Your task to perform on an android device: set the stopwatch Image 0: 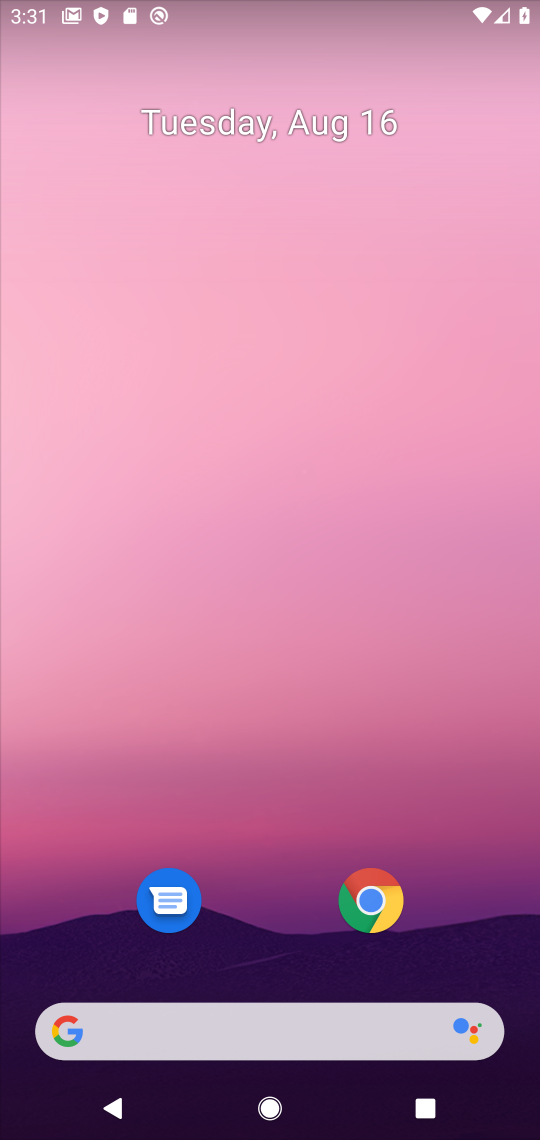
Step 0: drag from (259, 970) to (311, 105)
Your task to perform on an android device: set the stopwatch Image 1: 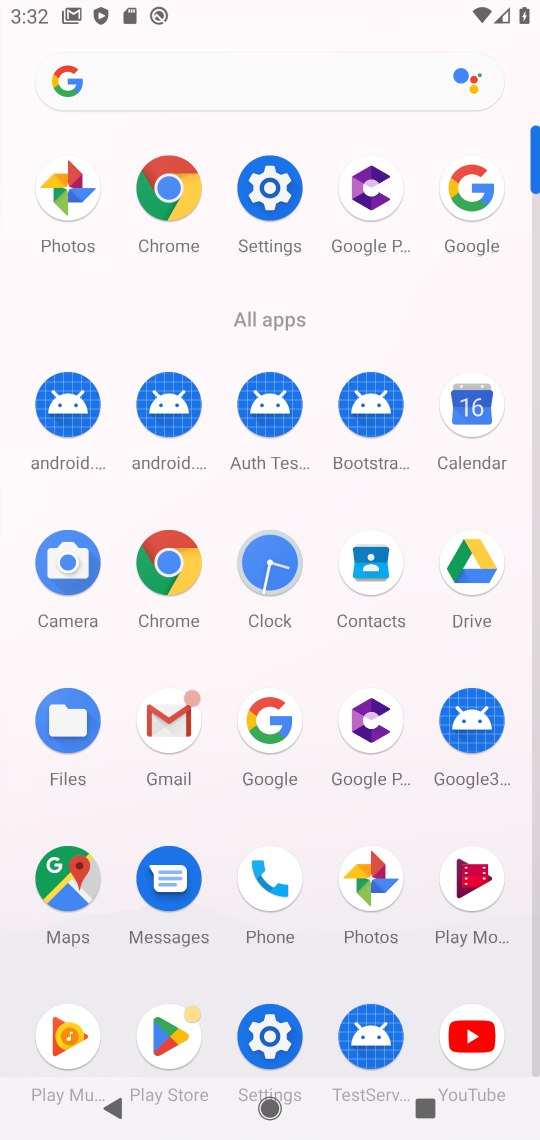
Step 1: click (273, 577)
Your task to perform on an android device: set the stopwatch Image 2: 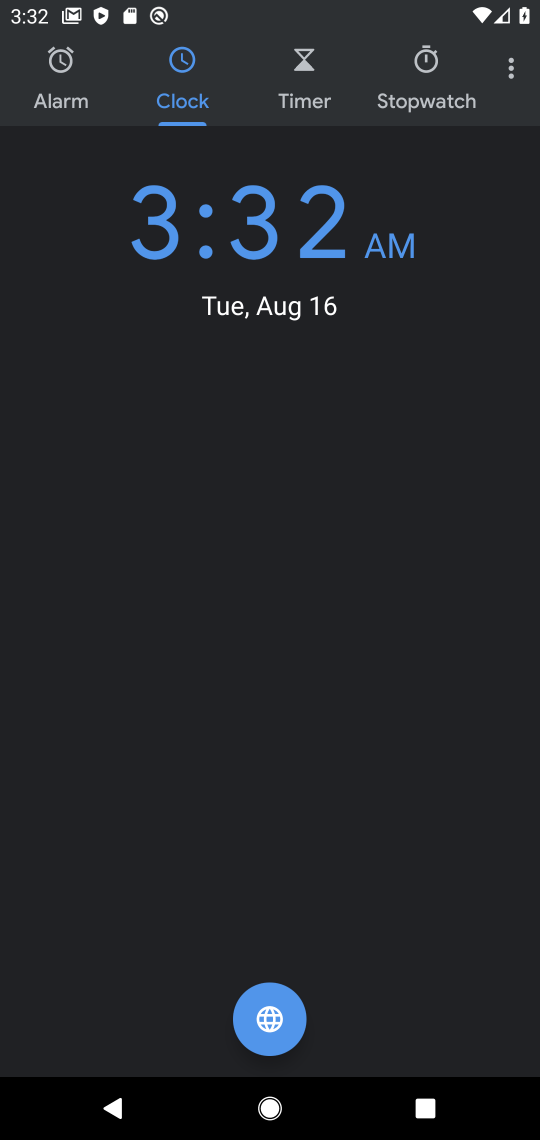
Step 2: click (433, 87)
Your task to perform on an android device: set the stopwatch Image 3: 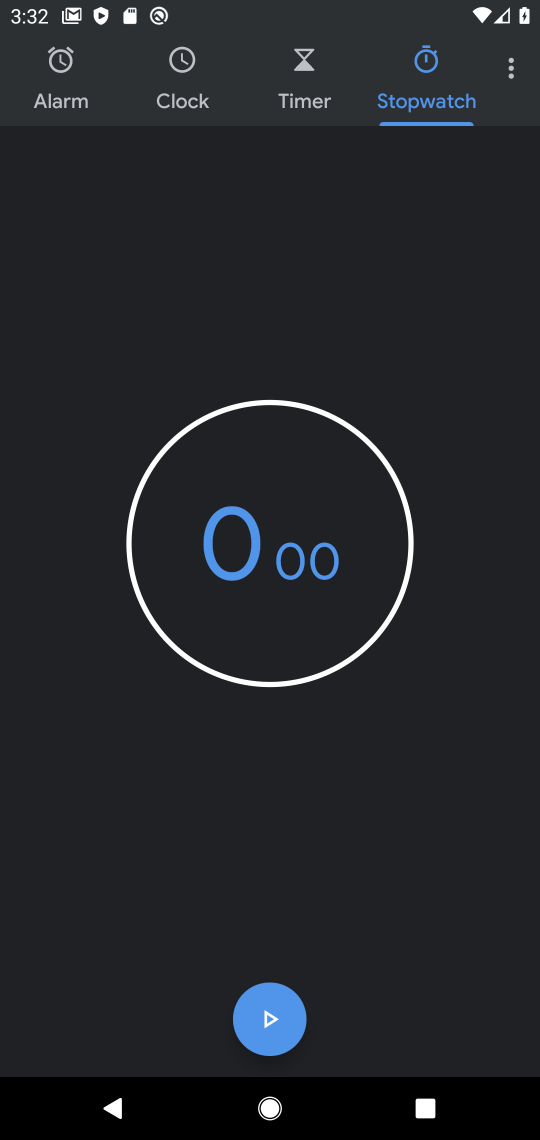
Step 3: click (298, 565)
Your task to perform on an android device: set the stopwatch Image 4: 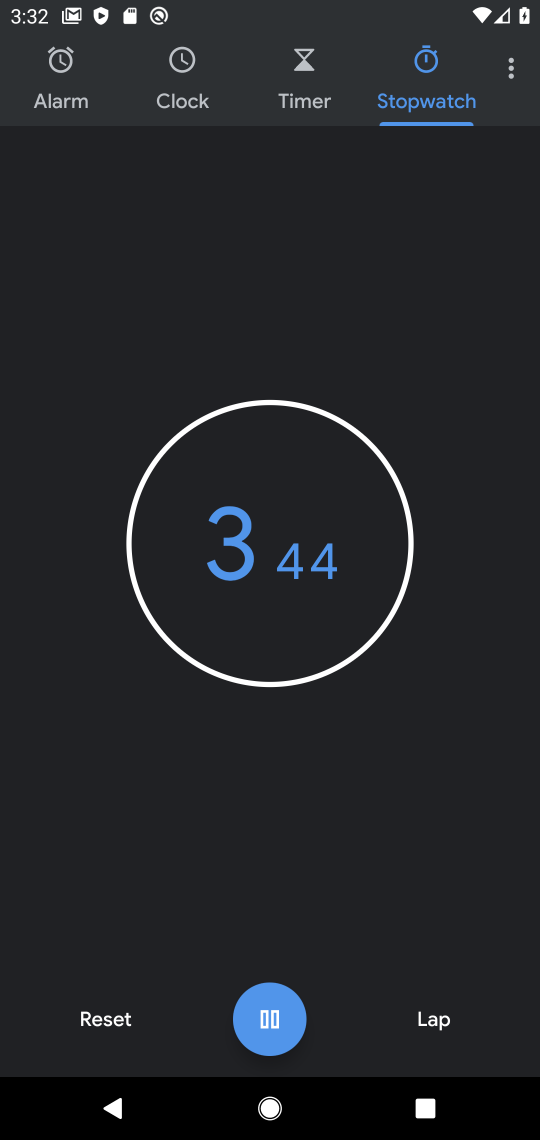
Step 4: type "7887"
Your task to perform on an android device: set the stopwatch Image 5: 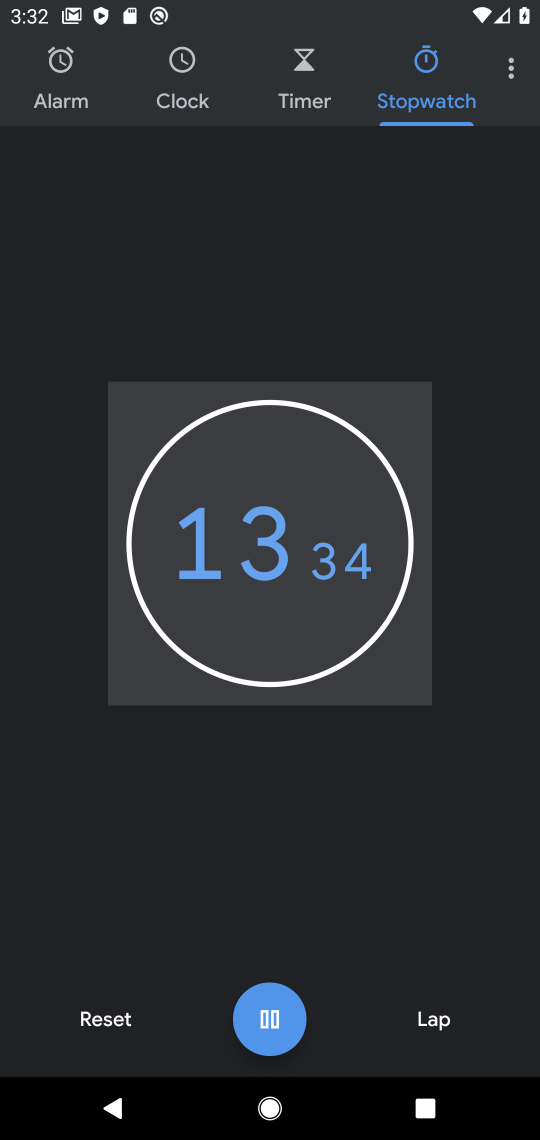
Step 5: task complete